Your task to perform on an android device: make emails show in primary in the gmail app Image 0: 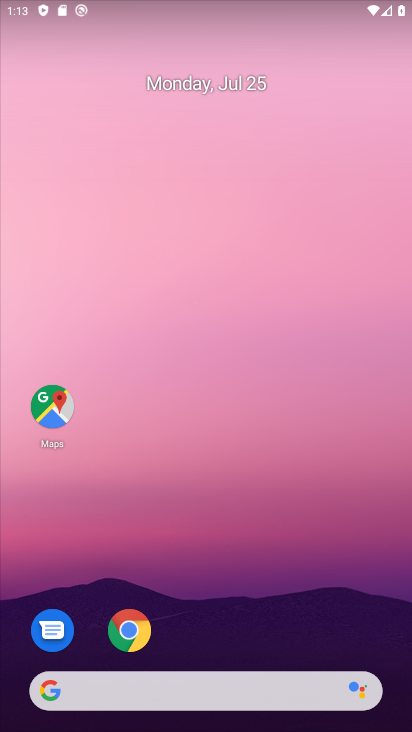
Step 0: task complete